Your task to perform on an android device: find photos in the google photos app Image 0: 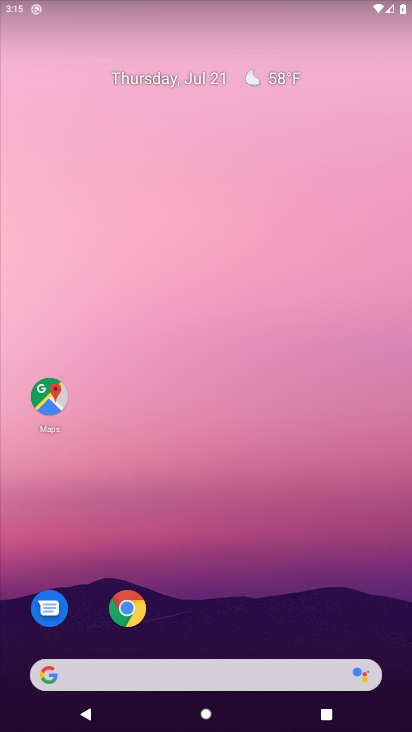
Step 0: press home button
Your task to perform on an android device: find photos in the google photos app Image 1: 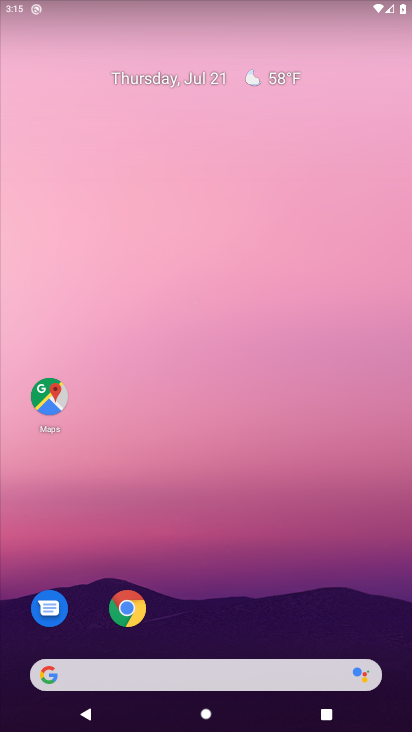
Step 1: drag from (218, 635) to (212, 30)
Your task to perform on an android device: find photos in the google photos app Image 2: 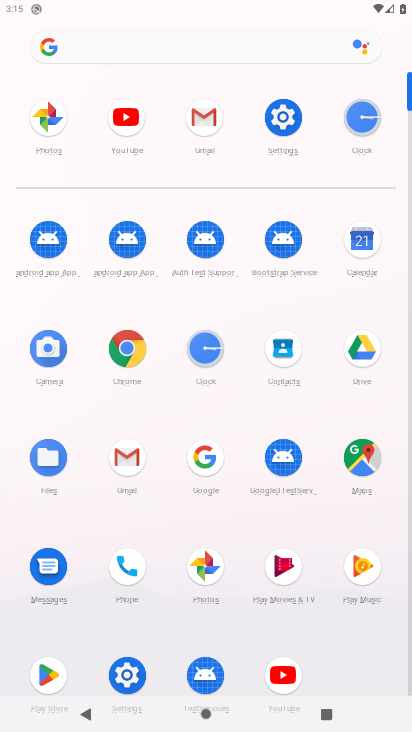
Step 2: click (205, 555)
Your task to perform on an android device: find photos in the google photos app Image 3: 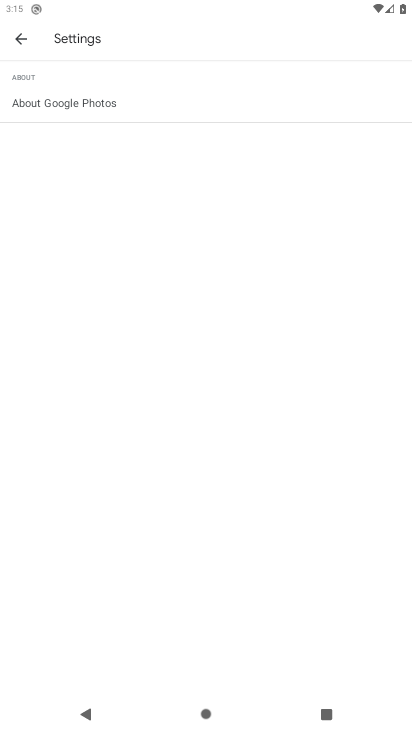
Step 3: click (19, 38)
Your task to perform on an android device: find photos in the google photos app Image 4: 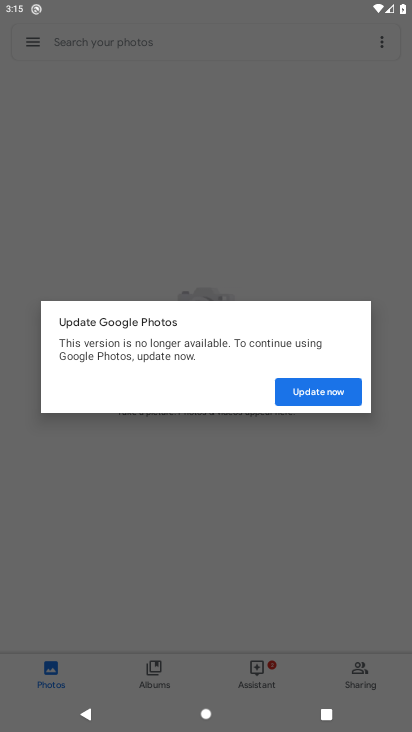
Step 4: click (317, 380)
Your task to perform on an android device: find photos in the google photos app Image 5: 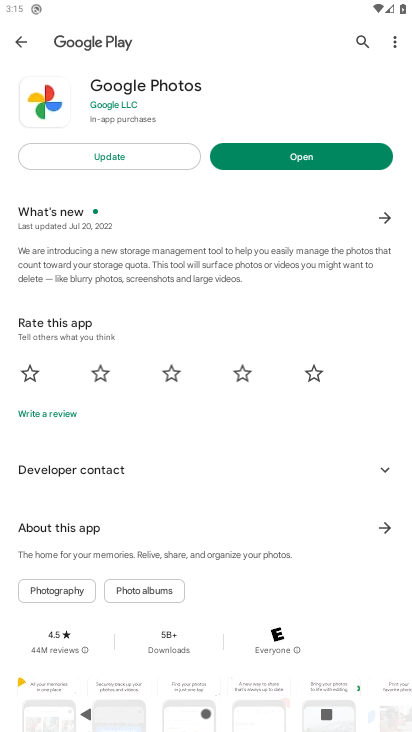
Step 5: click (115, 151)
Your task to perform on an android device: find photos in the google photos app Image 6: 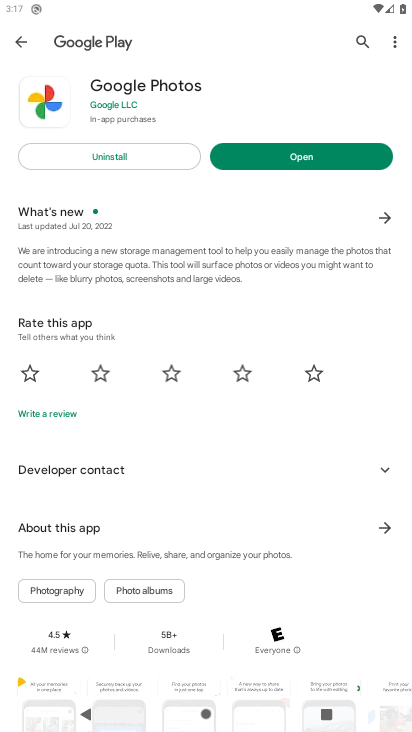
Step 6: click (320, 160)
Your task to perform on an android device: find photos in the google photos app Image 7: 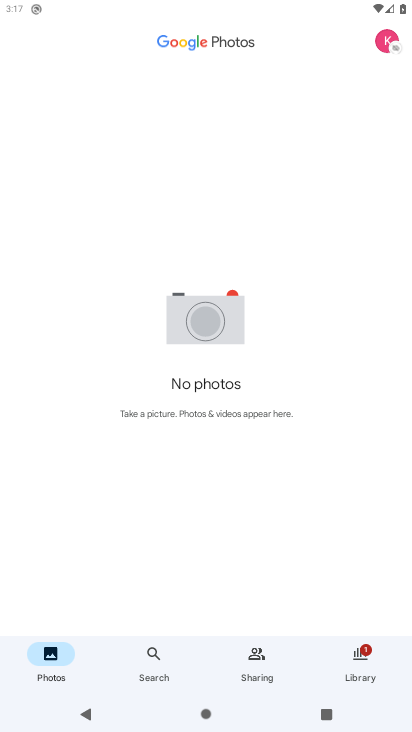
Step 7: task complete